Your task to perform on an android device: Turn off the flashlight Image 0: 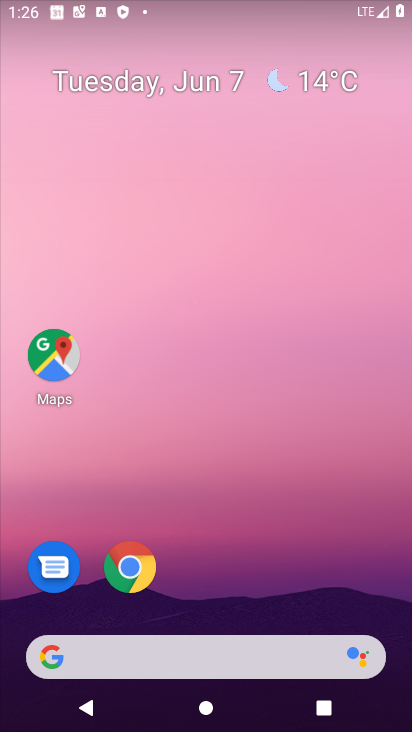
Step 0: task impossible